Your task to perform on an android device: Open the web browser Image 0: 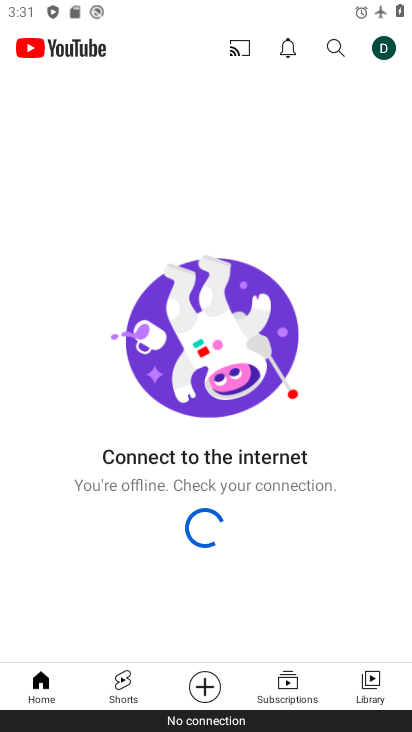
Step 0: press home button
Your task to perform on an android device: Open the web browser Image 1: 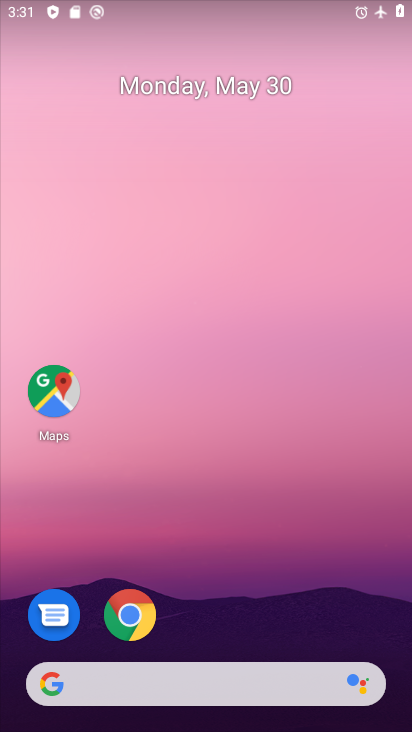
Step 1: click (259, 676)
Your task to perform on an android device: Open the web browser Image 2: 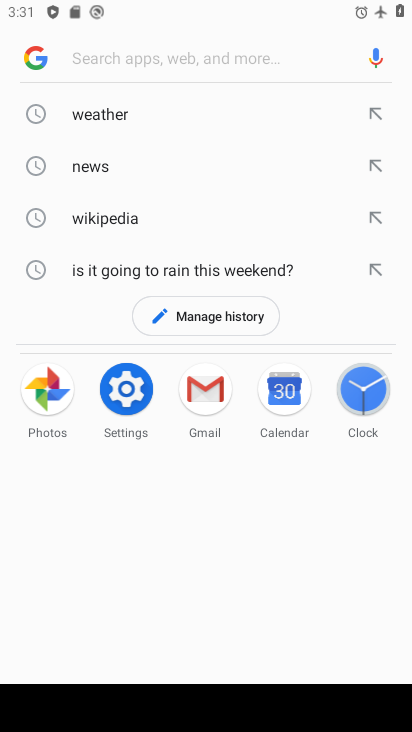
Step 2: task complete